Your task to perform on an android device: empty trash in google photos Image 0: 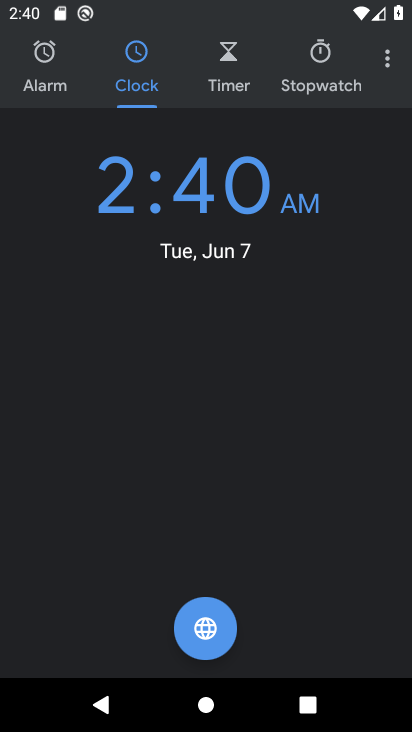
Step 0: press home button
Your task to perform on an android device: empty trash in google photos Image 1: 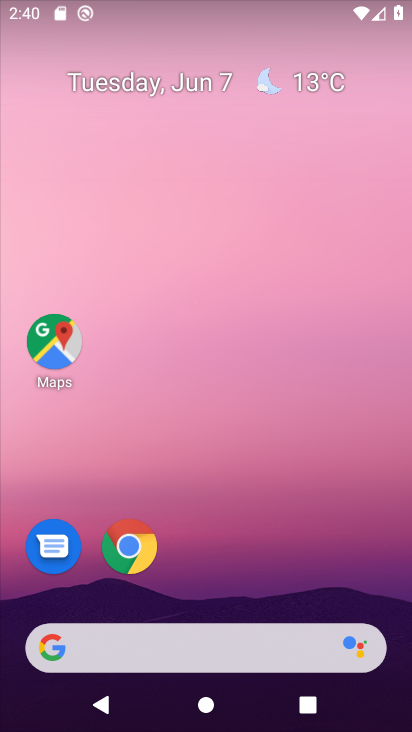
Step 1: drag from (296, 559) to (304, 213)
Your task to perform on an android device: empty trash in google photos Image 2: 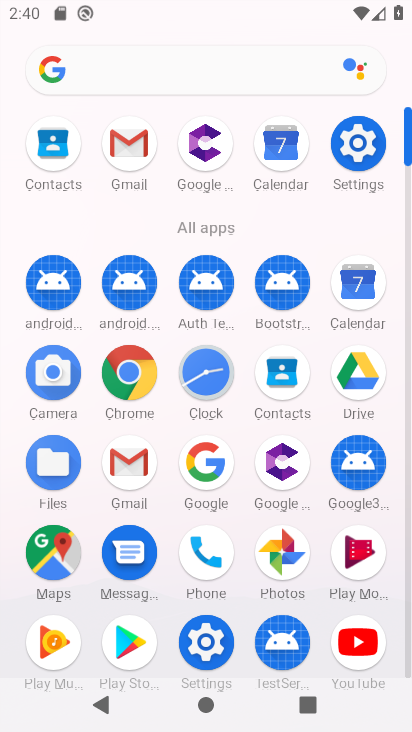
Step 2: click (283, 538)
Your task to perform on an android device: empty trash in google photos Image 3: 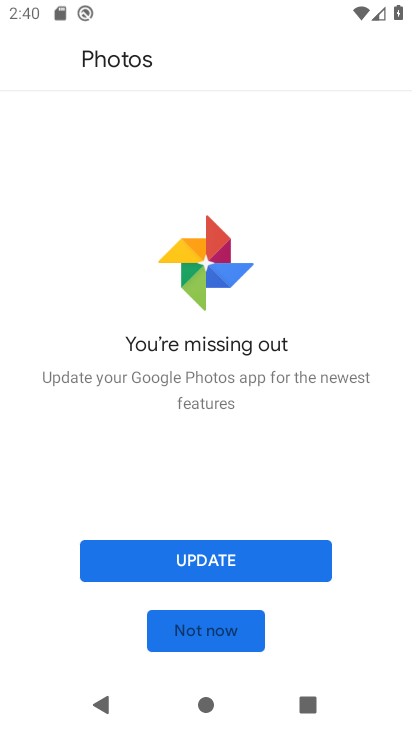
Step 3: click (235, 566)
Your task to perform on an android device: empty trash in google photos Image 4: 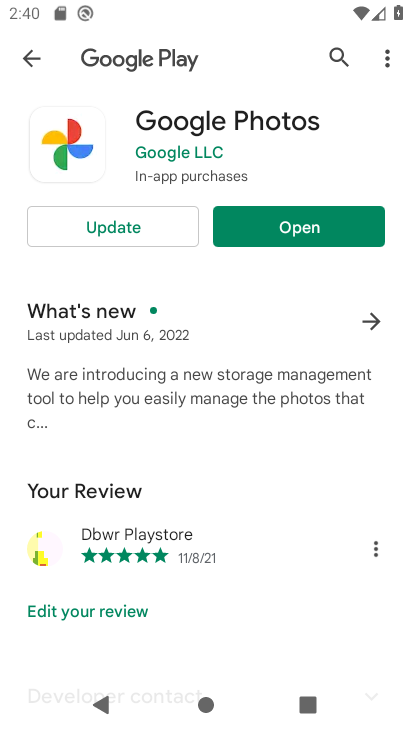
Step 4: click (125, 228)
Your task to perform on an android device: empty trash in google photos Image 5: 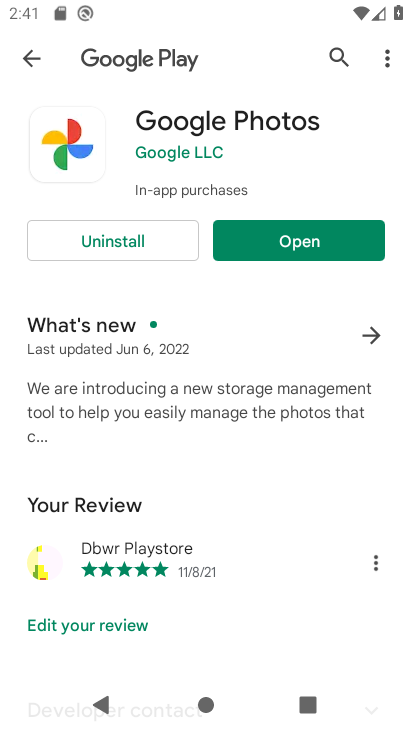
Step 5: click (296, 250)
Your task to perform on an android device: empty trash in google photos Image 6: 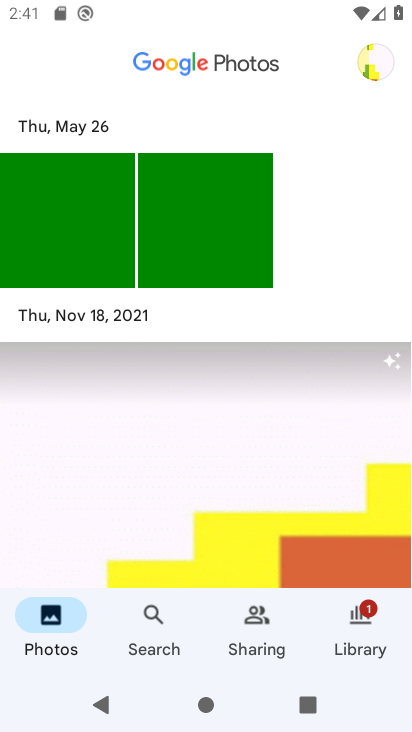
Step 6: click (353, 620)
Your task to perform on an android device: empty trash in google photos Image 7: 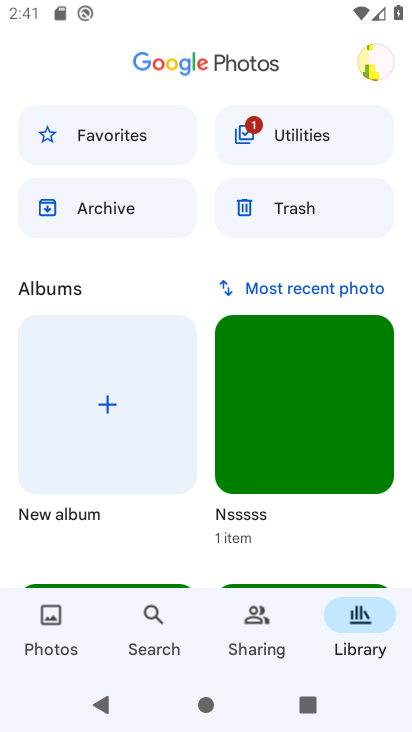
Step 7: click (296, 218)
Your task to perform on an android device: empty trash in google photos Image 8: 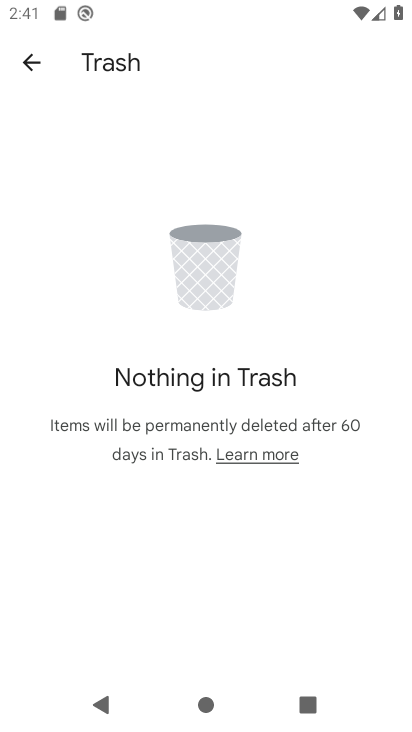
Step 8: task complete